Your task to perform on an android device: turn on translation in the chrome app Image 0: 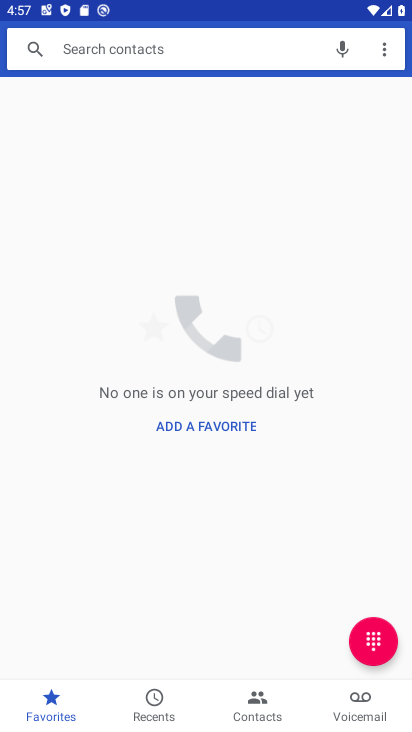
Step 0: press home button
Your task to perform on an android device: turn on translation in the chrome app Image 1: 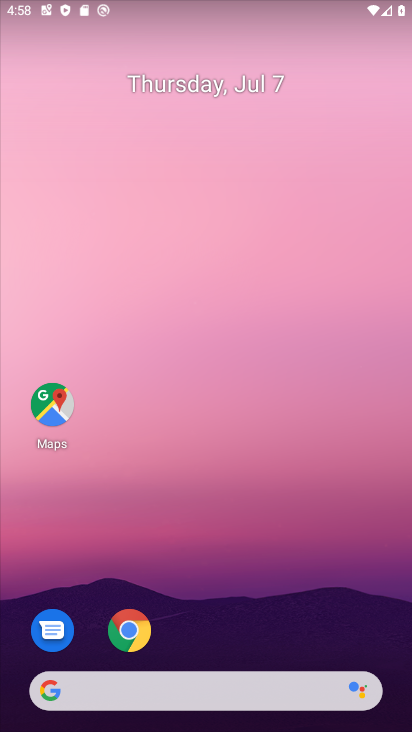
Step 1: click (130, 623)
Your task to perform on an android device: turn on translation in the chrome app Image 2: 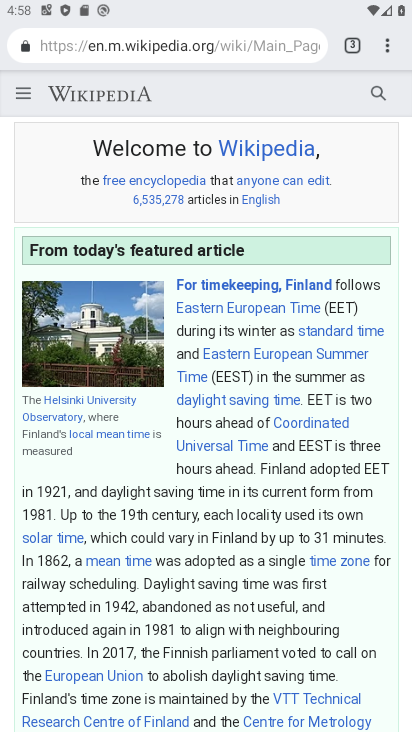
Step 2: click (394, 38)
Your task to perform on an android device: turn on translation in the chrome app Image 3: 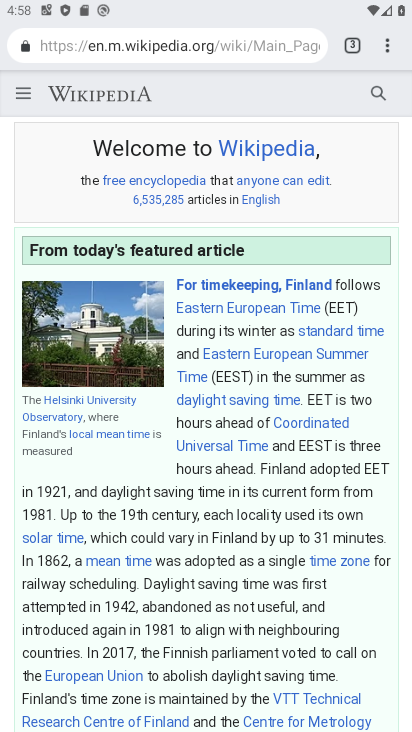
Step 3: click (387, 36)
Your task to perform on an android device: turn on translation in the chrome app Image 4: 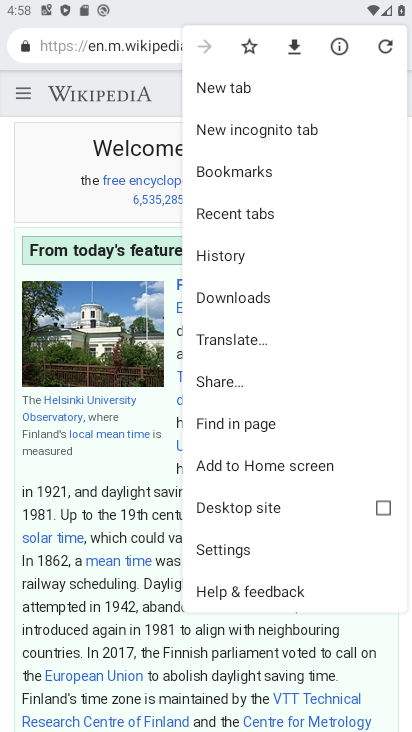
Step 4: click (232, 543)
Your task to perform on an android device: turn on translation in the chrome app Image 5: 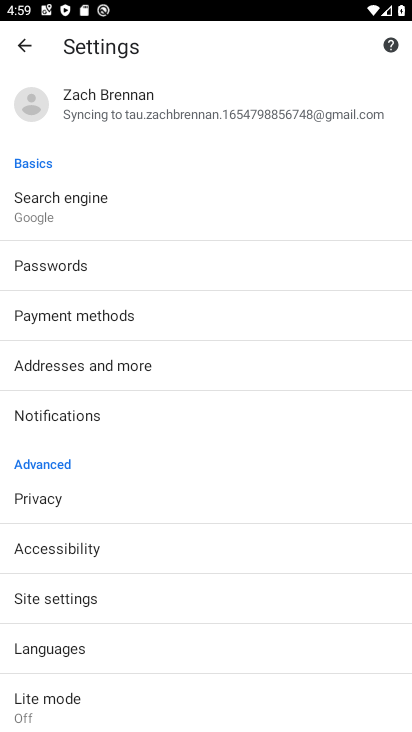
Step 5: click (65, 668)
Your task to perform on an android device: turn on translation in the chrome app Image 6: 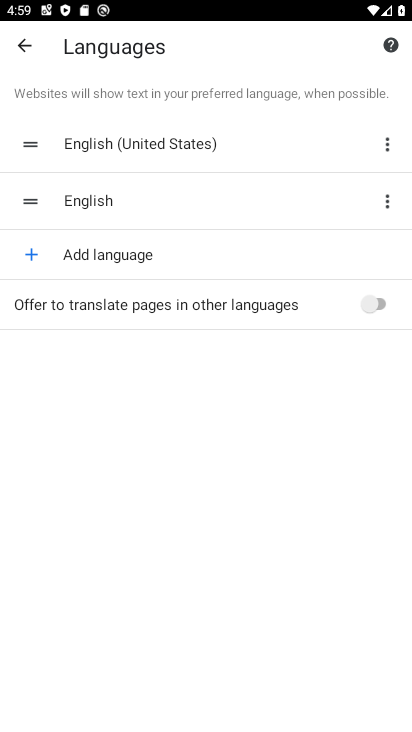
Step 6: click (375, 311)
Your task to perform on an android device: turn on translation in the chrome app Image 7: 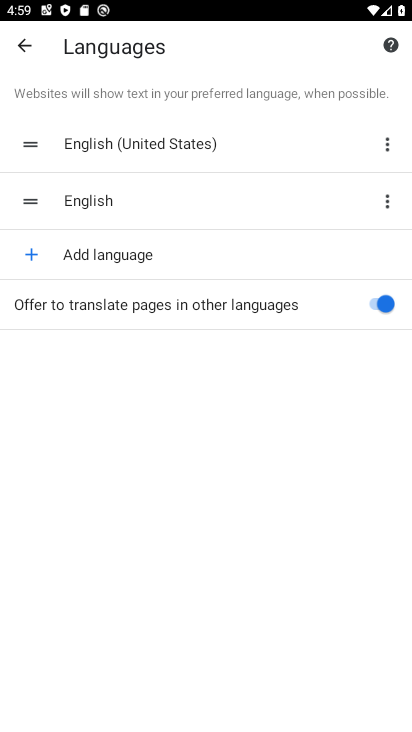
Step 7: task complete